Your task to perform on an android device: turn pop-ups off in chrome Image 0: 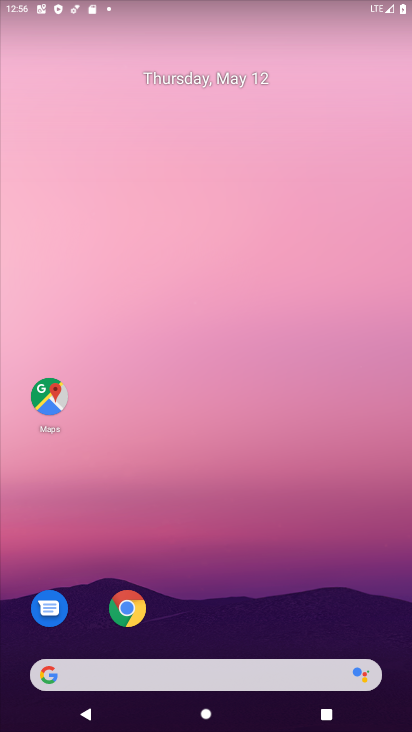
Step 0: click (128, 613)
Your task to perform on an android device: turn pop-ups off in chrome Image 1: 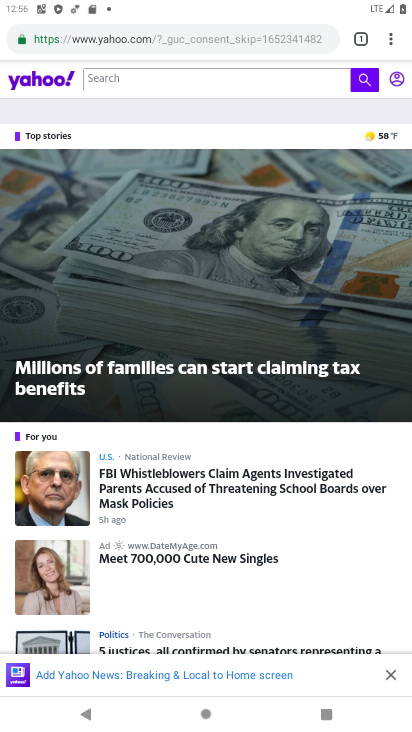
Step 1: click (387, 46)
Your task to perform on an android device: turn pop-ups off in chrome Image 2: 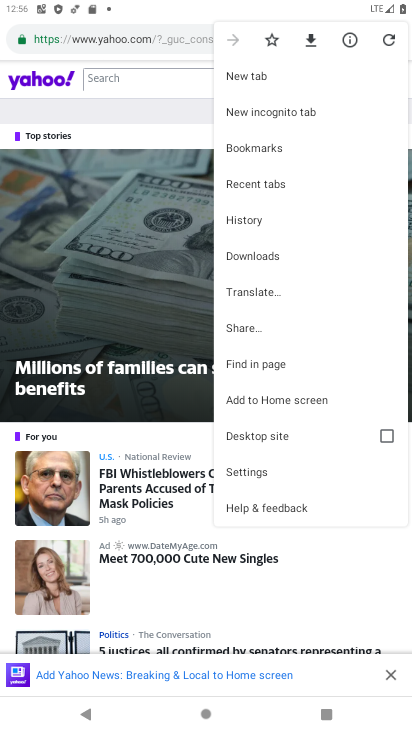
Step 2: click (241, 474)
Your task to perform on an android device: turn pop-ups off in chrome Image 3: 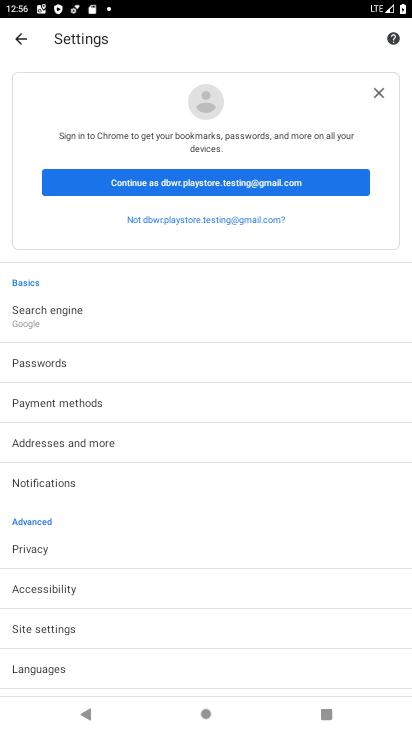
Step 3: click (38, 629)
Your task to perform on an android device: turn pop-ups off in chrome Image 4: 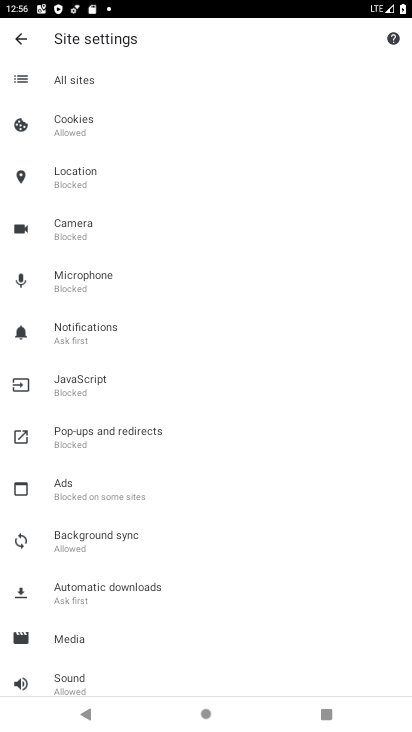
Step 4: click (88, 451)
Your task to perform on an android device: turn pop-ups off in chrome Image 5: 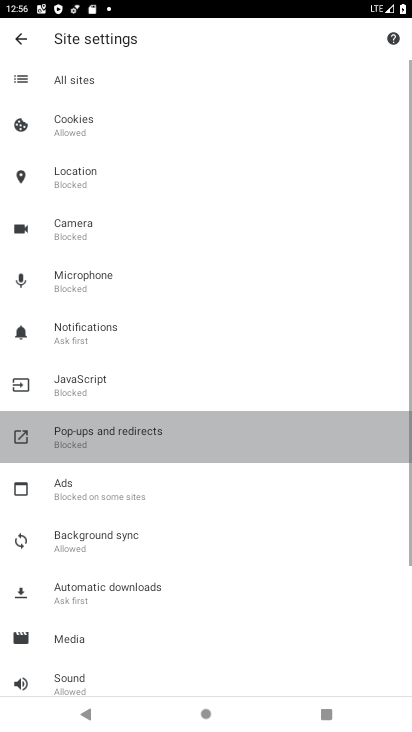
Step 5: click (88, 451)
Your task to perform on an android device: turn pop-ups off in chrome Image 6: 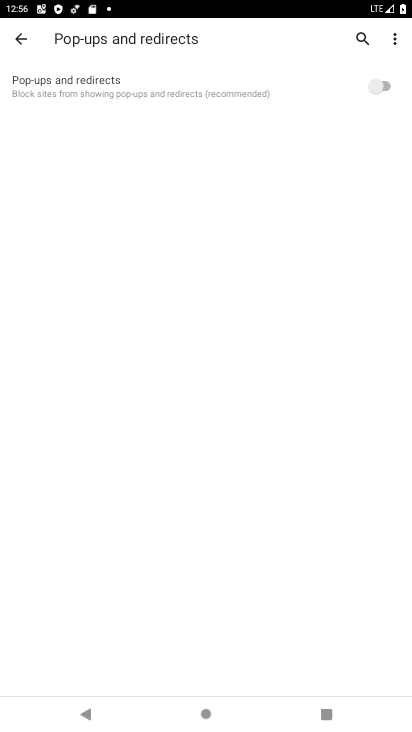
Step 6: task complete